Your task to perform on an android device: Open Wikipedia Image 0: 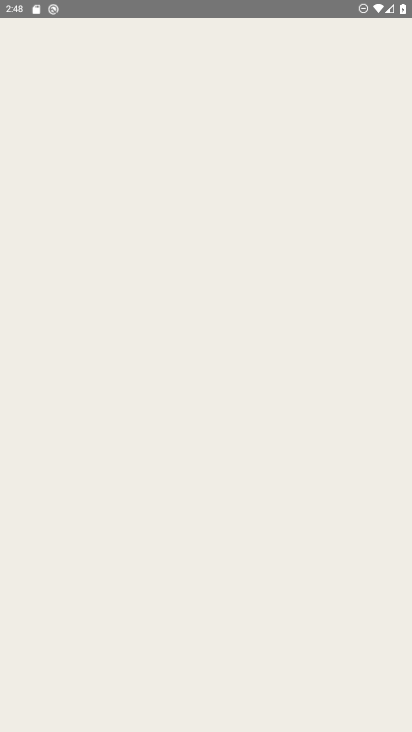
Step 0: press home button
Your task to perform on an android device: Open Wikipedia Image 1: 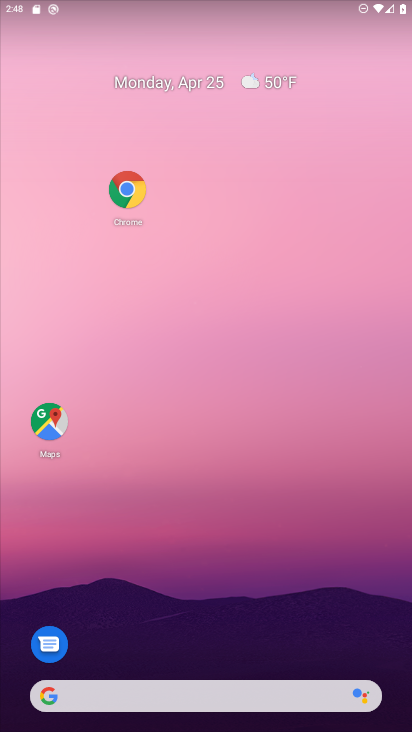
Step 1: drag from (163, 673) to (238, 238)
Your task to perform on an android device: Open Wikipedia Image 2: 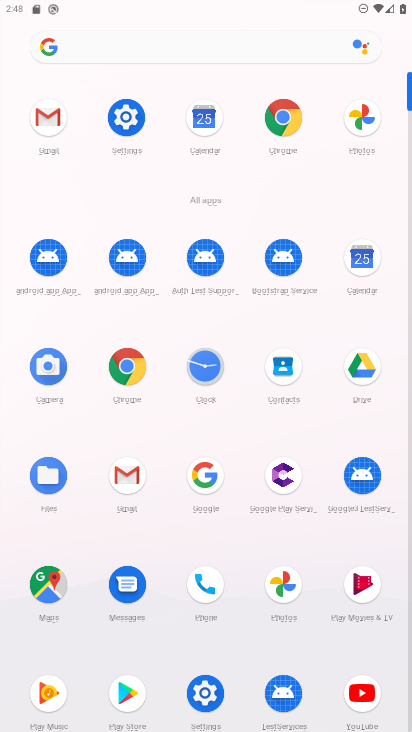
Step 2: click (126, 368)
Your task to perform on an android device: Open Wikipedia Image 3: 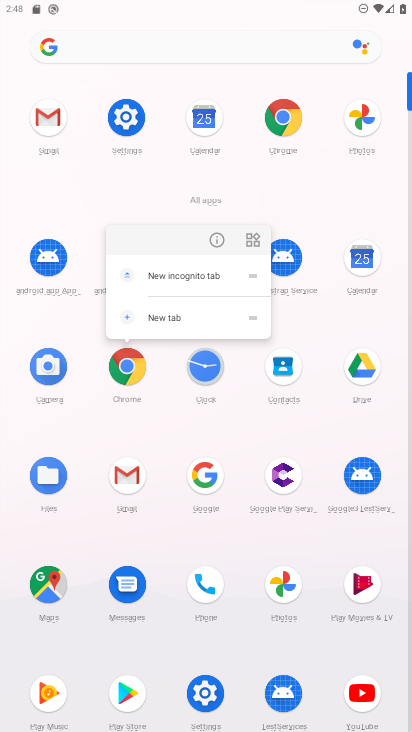
Step 3: click (227, 241)
Your task to perform on an android device: Open Wikipedia Image 4: 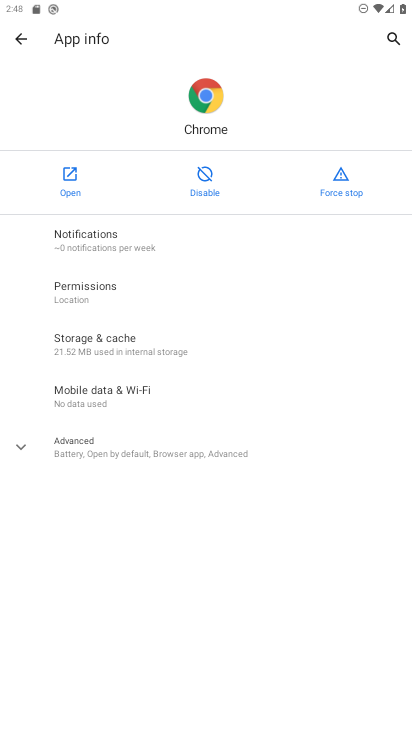
Step 4: click (77, 183)
Your task to perform on an android device: Open Wikipedia Image 5: 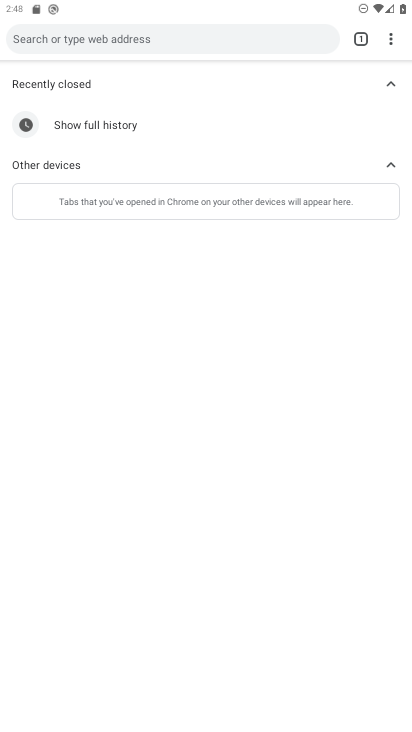
Step 5: click (99, 41)
Your task to perform on an android device: Open Wikipedia Image 6: 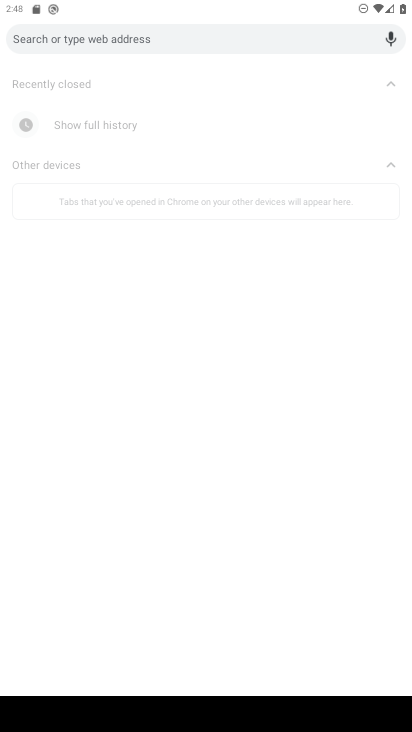
Step 6: type "wikipedia"
Your task to perform on an android device: Open Wikipedia Image 7: 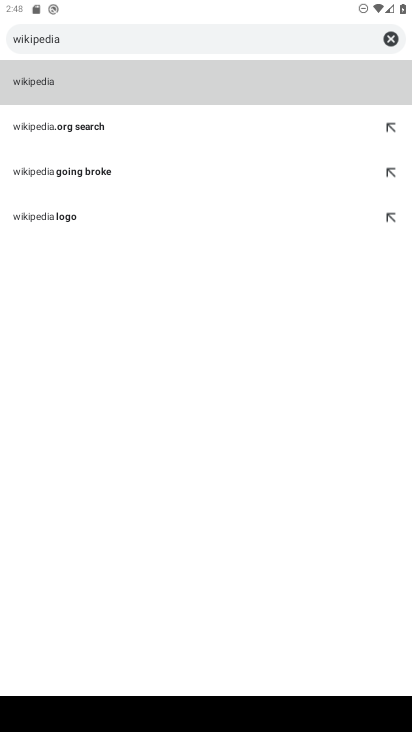
Step 7: click (162, 77)
Your task to perform on an android device: Open Wikipedia Image 8: 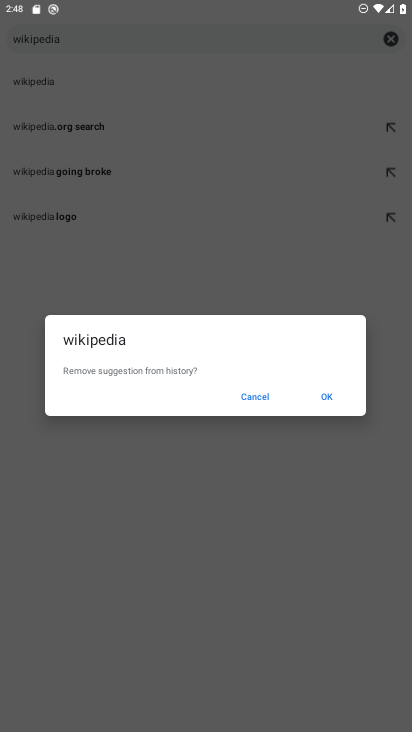
Step 8: click (326, 400)
Your task to perform on an android device: Open Wikipedia Image 9: 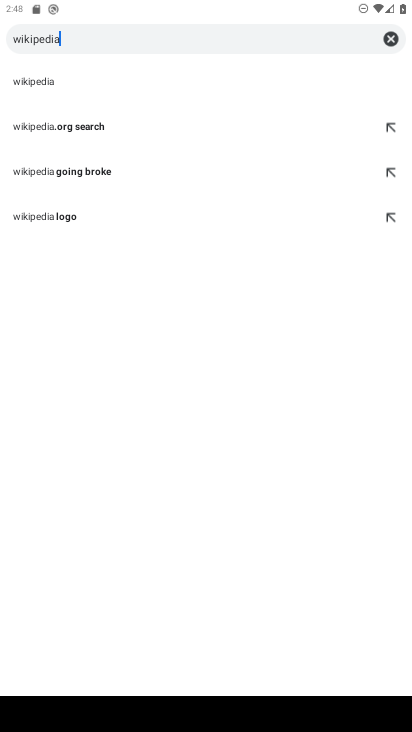
Step 9: click (49, 81)
Your task to perform on an android device: Open Wikipedia Image 10: 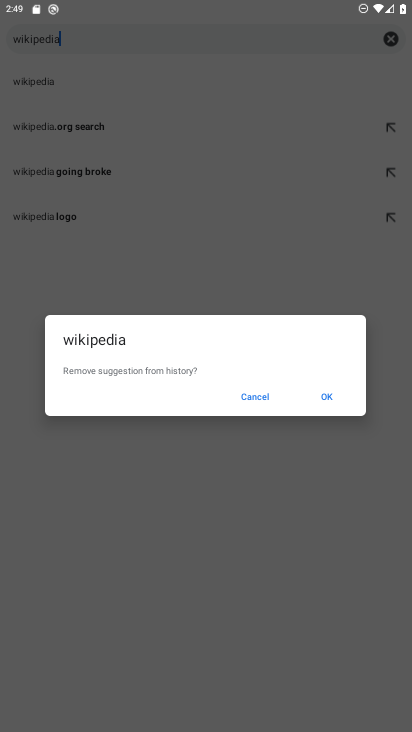
Step 10: click (325, 400)
Your task to perform on an android device: Open Wikipedia Image 11: 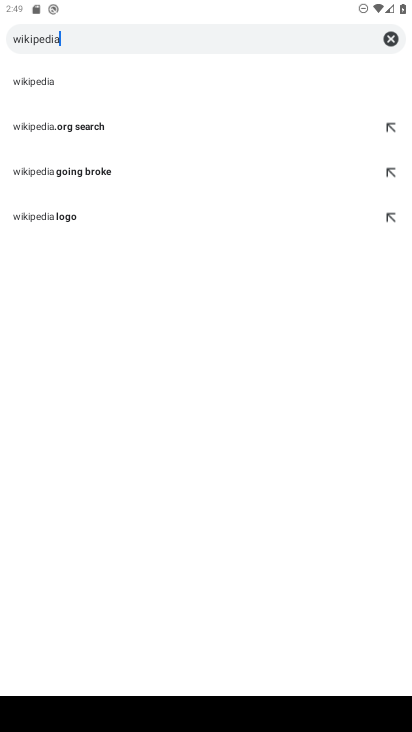
Step 11: click (44, 81)
Your task to perform on an android device: Open Wikipedia Image 12: 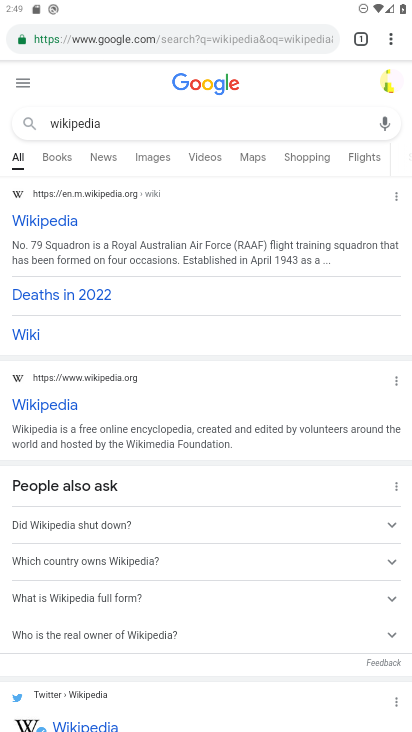
Step 12: task complete